Your task to perform on an android device: make emails show in primary in the gmail app Image 0: 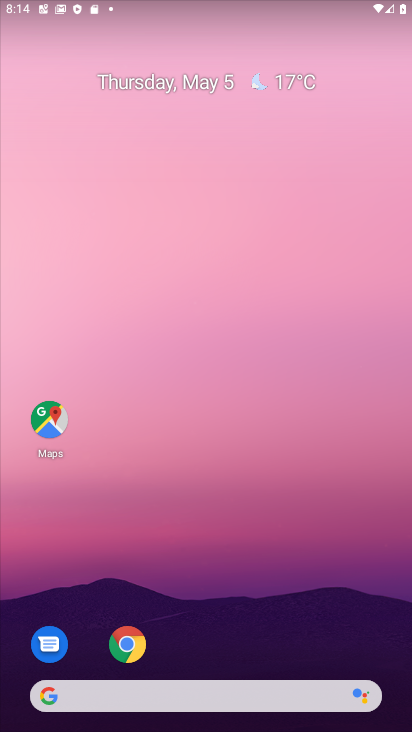
Step 0: drag from (243, 641) to (157, 231)
Your task to perform on an android device: make emails show in primary in the gmail app Image 1: 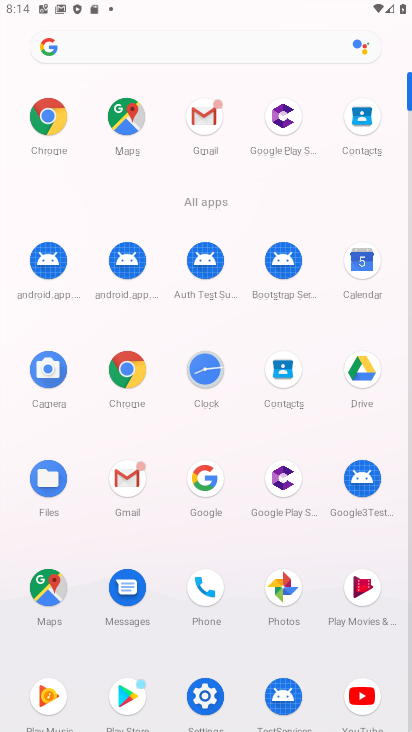
Step 1: click (193, 124)
Your task to perform on an android device: make emails show in primary in the gmail app Image 2: 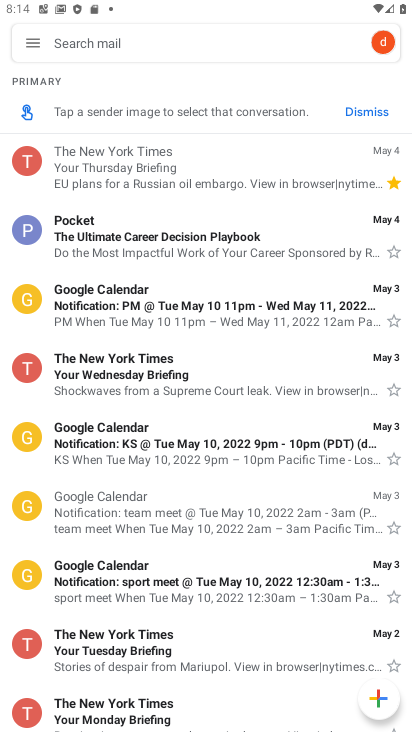
Step 2: click (29, 35)
Your task to perform on an android device: make emails show in primary in the gmail app Image 3: 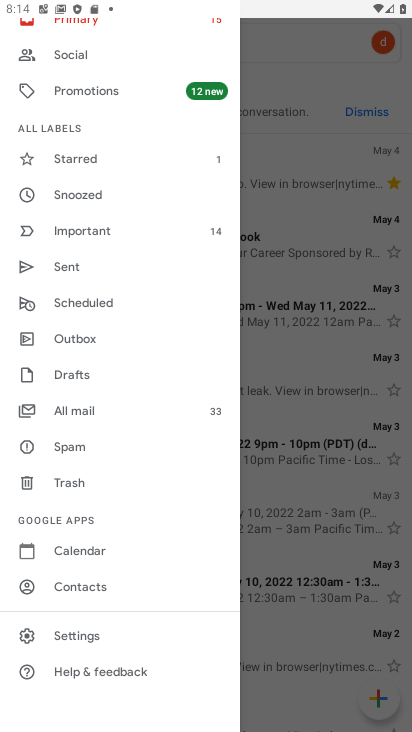
Step 3: click (129, 637)
Your task to perform on an android device: make emails show in primary in the gmail app Image 4: 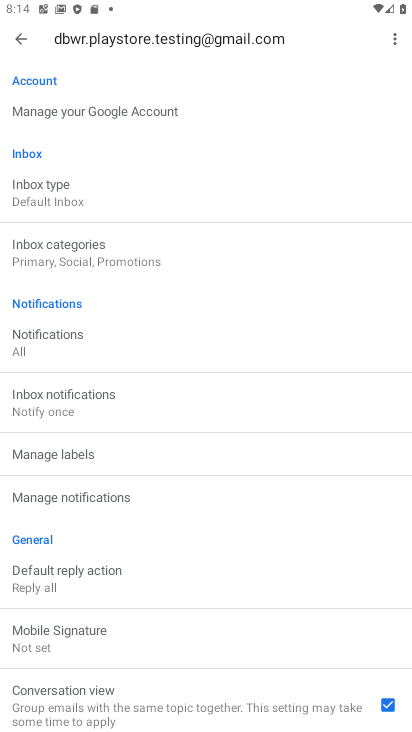
Step 4: task complete